Your task to perform on an android device: What is the recent news? Image 0: 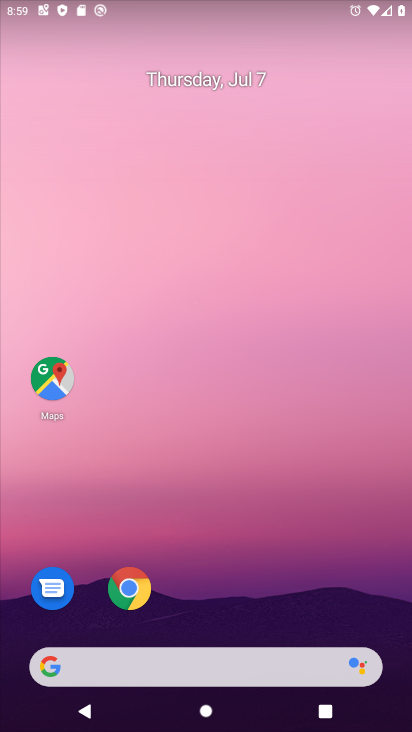
Step 0: press home button
Your task to perform on an android device: What is the recent news? Image 1: 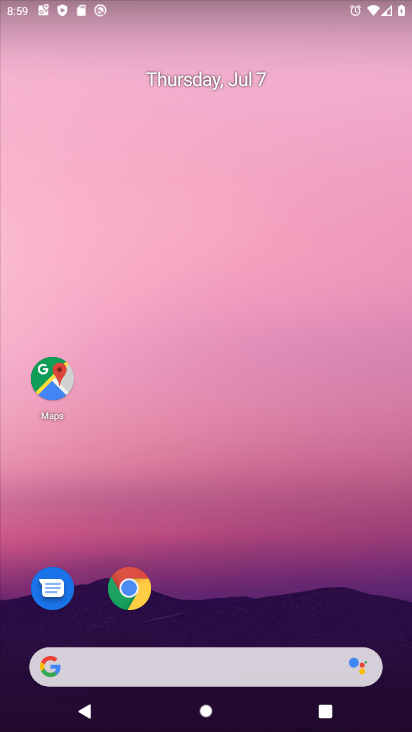
Step 1: click (213, 9)
Your task to perform on an android device: What is the recent news? Image 2: 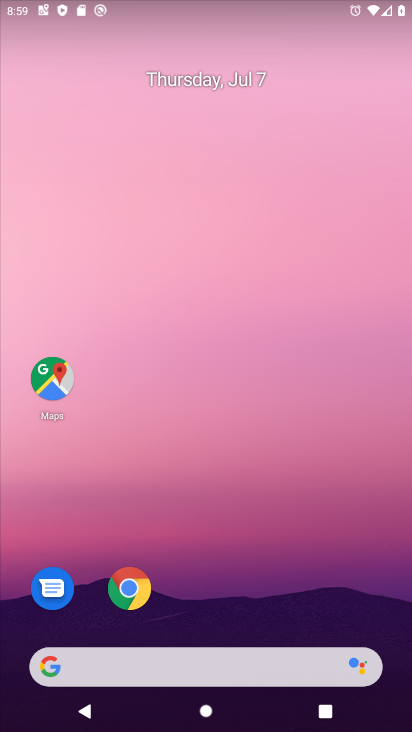
Step 2: task complete